Your task to perform on an android device: toggle notifications settings in the gmail app Image 0: 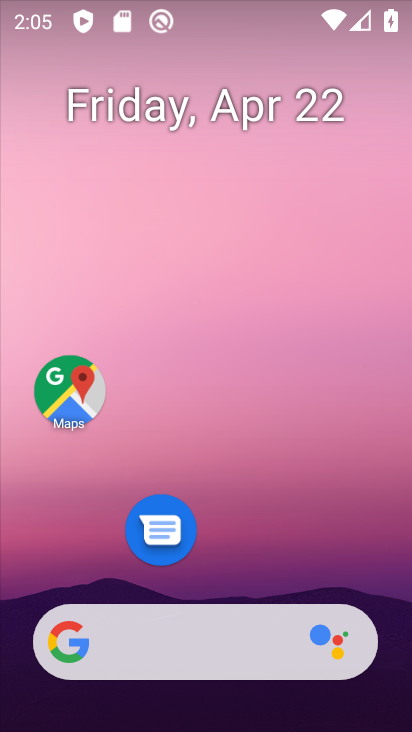
Step 0: drag from (240, 557) to (292, 3)
Your task to perform on an android device: toggle notifications settings in the gmail app Image 1: 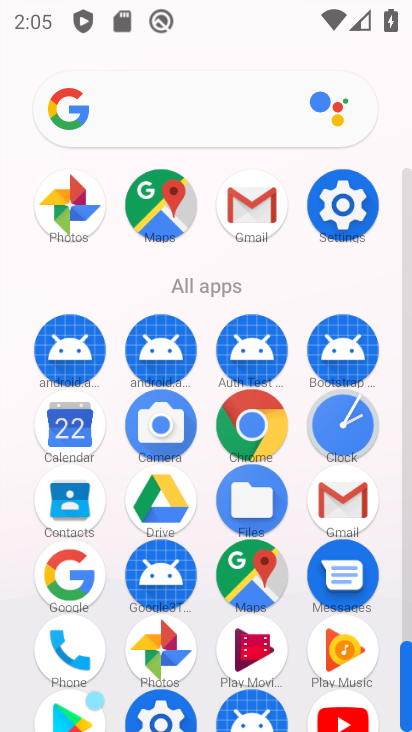
Step 1: click (248, 211)
Your task to perform on an android device: toggle notifications settings in the gmail app Image 2: 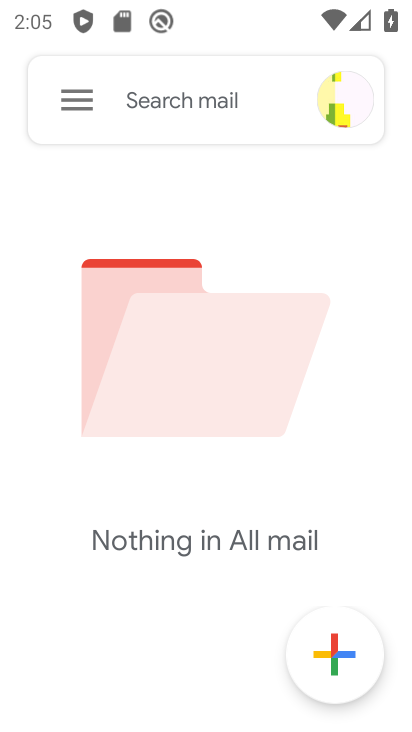
Step 2: click (72, 103)
Your task to perform on an android device: toggle notifications settings in the gmail app Image 3: 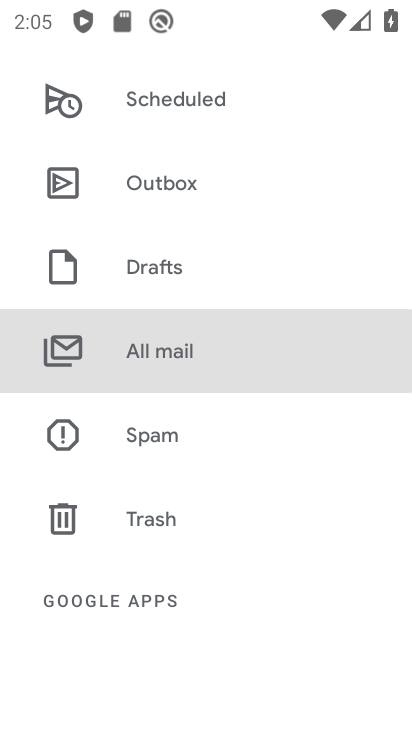
Step 3: drag from (203, 172) to (161, 686)
Your task to perform on an android device: toggle notifications settings in the gmail app Image 4: 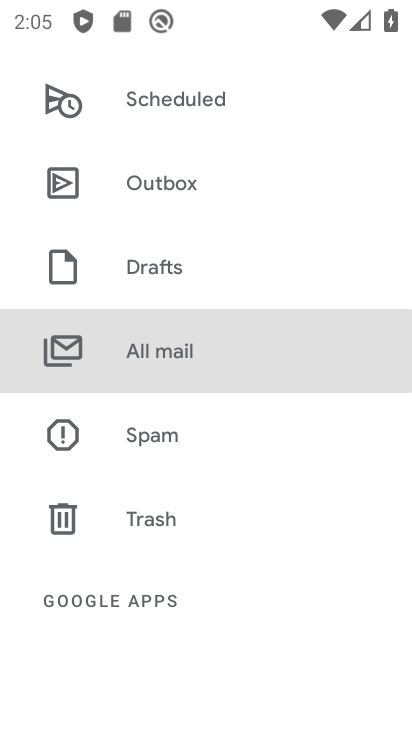
Step 4: drag from (252, 167) to (236, 699)
Your task to perform on an android device: toggle notifications settings in the gmail app Image 5: 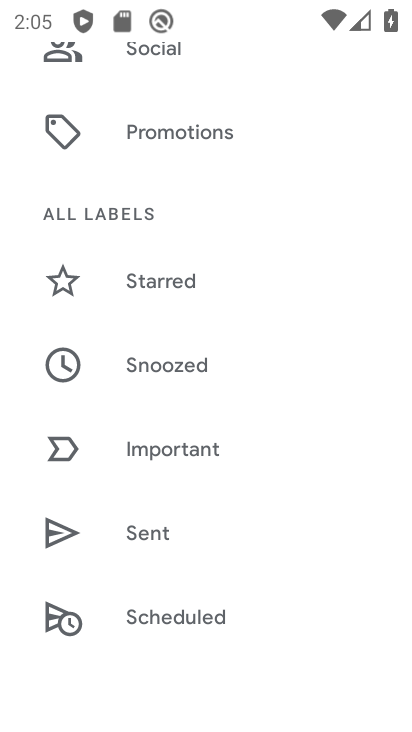
Step 5: drag from (230, 478) to (295, 0)
Your task to perform on an android device: toggle notifications settings in the gmail app Image 6: 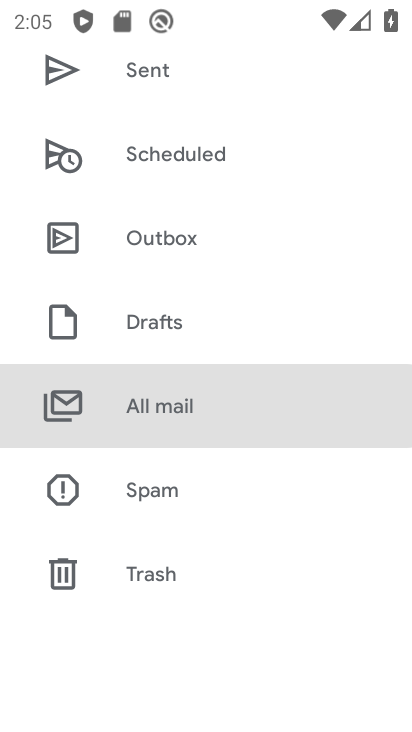
Step 6: drag from (225, 548) to (229, 62)
Your task to perform on an android device: toggle notifications settings in the gmail app Image 7: 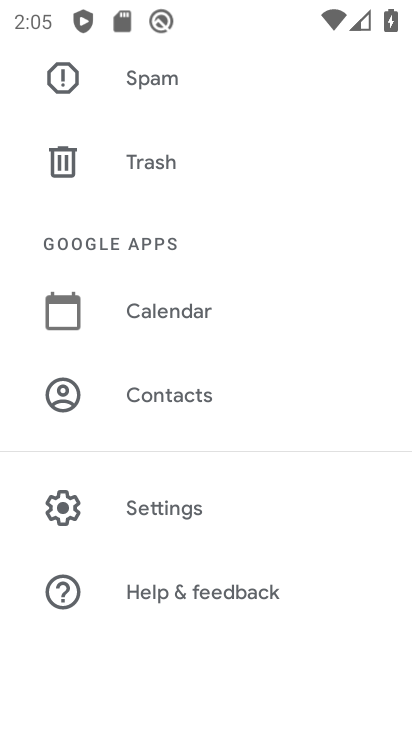
Step 7: click (181, 509)
Your task to perform on an android device: toggle notifications settings in the gmail app Image 8: 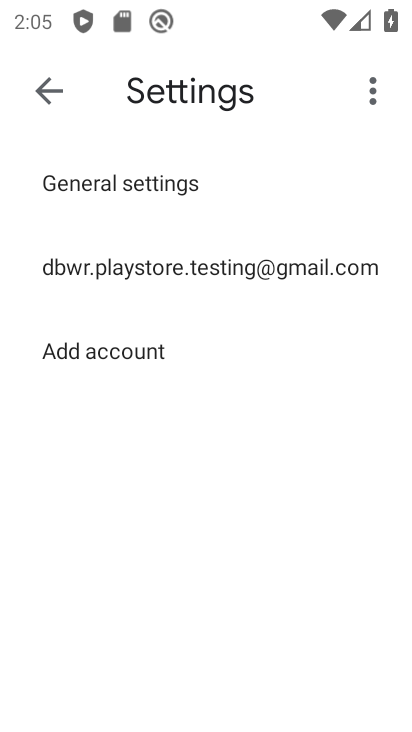
Step 8: click (99, 180)
Your task to perform on an android device: toggle notifications settings in the gmail app Image 9: 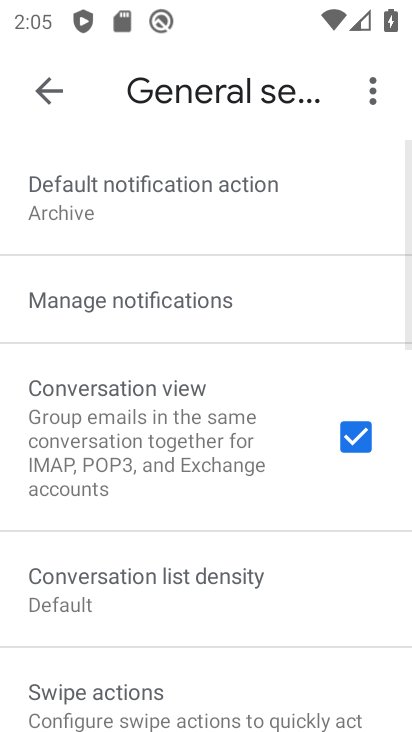
Step 9: click (142, 306)
Your task to perform on an android device: toggle notifications settings in the gmail app Image 10: 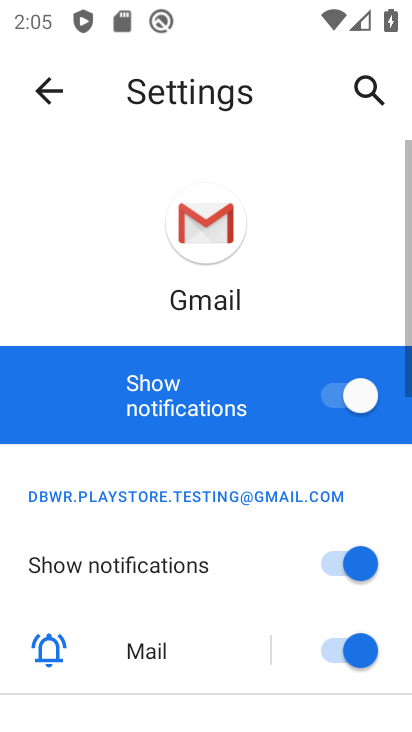
Step 10: click (348, 392)
Your task to perform on an android device: toggle notifications settings in the gmail app Image 11: 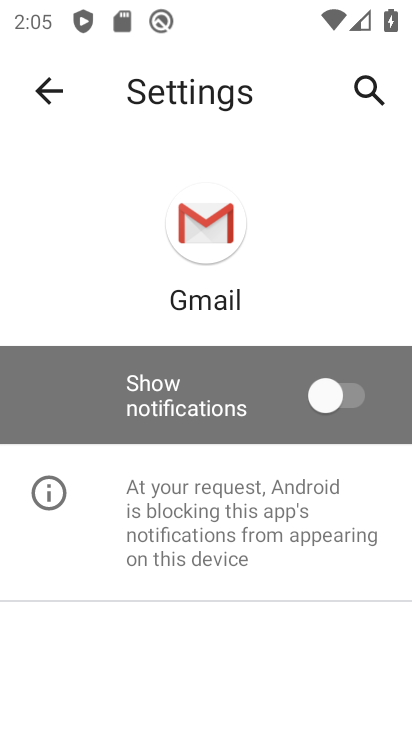
Step 11: task complete